Your task to perform on an android device: toggle translation in the chrome app Image 0: 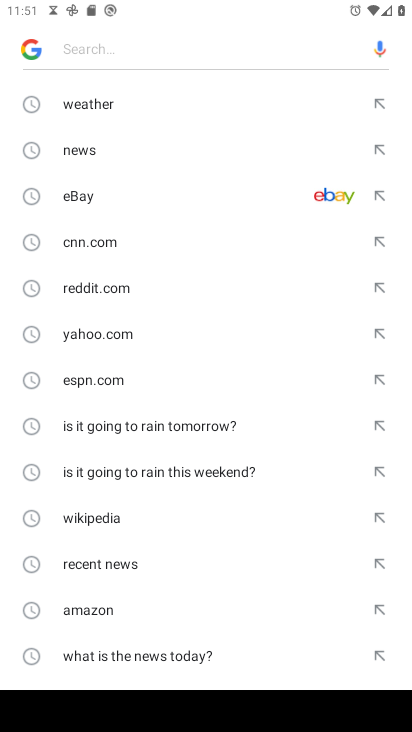
Step 0: press home button
Your task to perform on an android device: toggle translation in the chrome app Image 1: 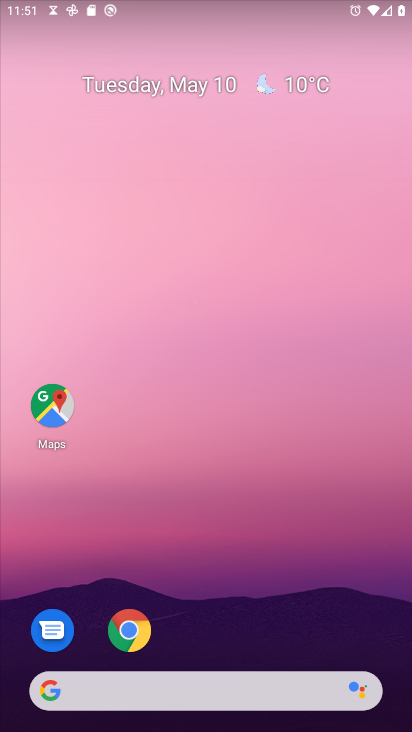
Step 1: click (125, 640)
Your task to perform on an android device: toggle translation in the chrome app Image 2: 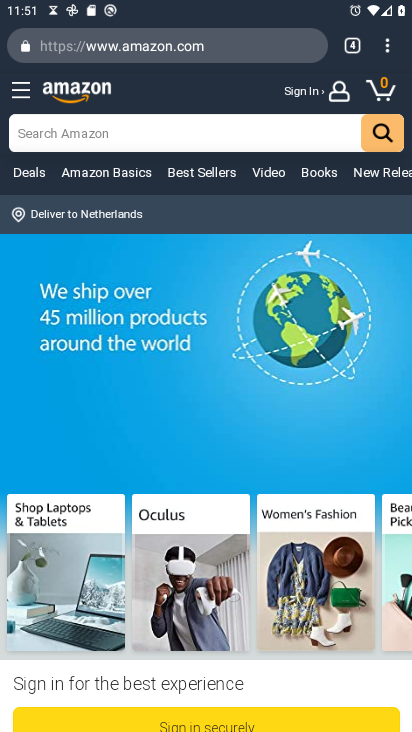
Step 2: click (398, 49)
Your task to perform on an android device: toggle translation in the chrome app Image 3: 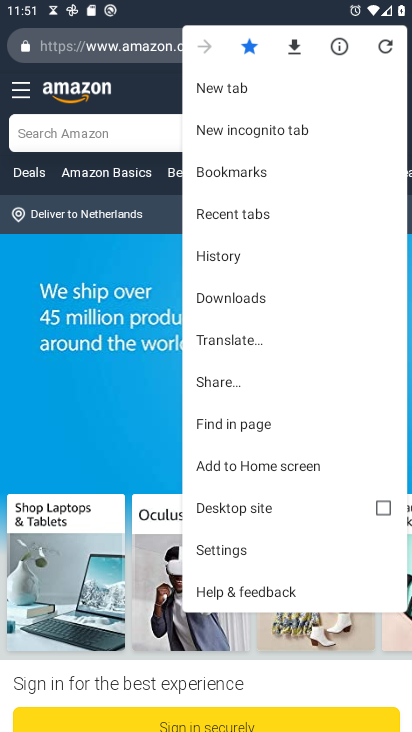
Step 3: click (264, 544)
Your task to perform on an android device: toggle translation in the chrome app Image 4: 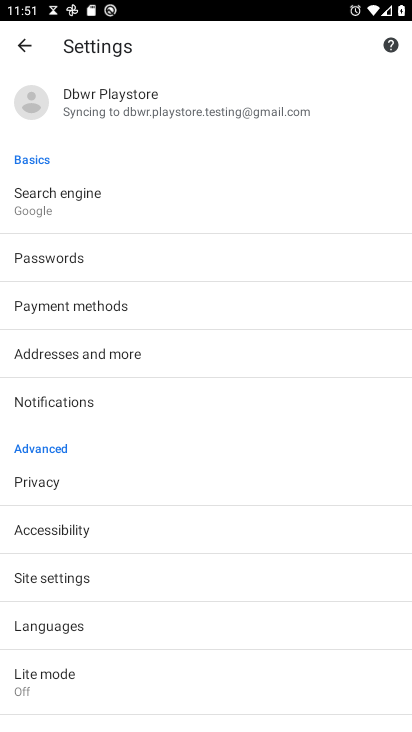
Step 4: click (63, 636)
Your task to perform on an android device: toggle translation in the chrome app Image 5: 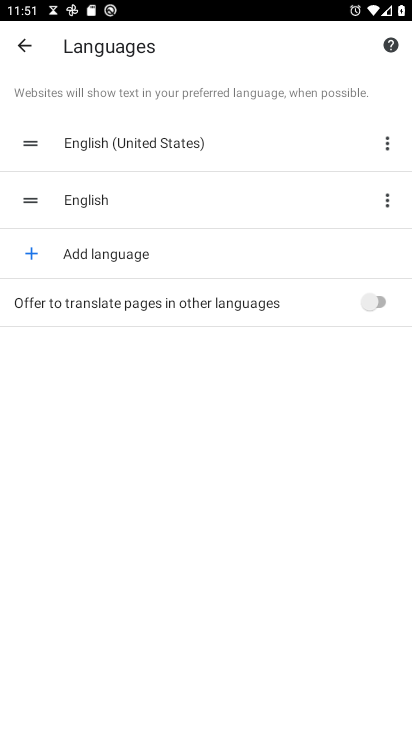
Step 5: click (383, 294)
Your task to perform on an android device: toggle translation in the chrome app Image 6: 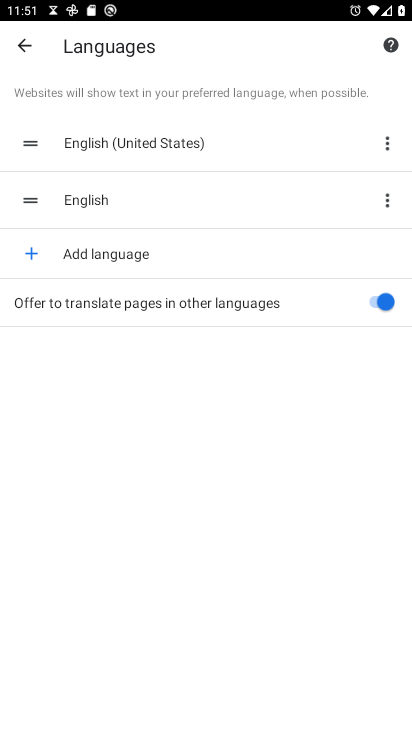
Step 6: task complete